Your task to perform on an android device: When is my next appointment? Image 0: 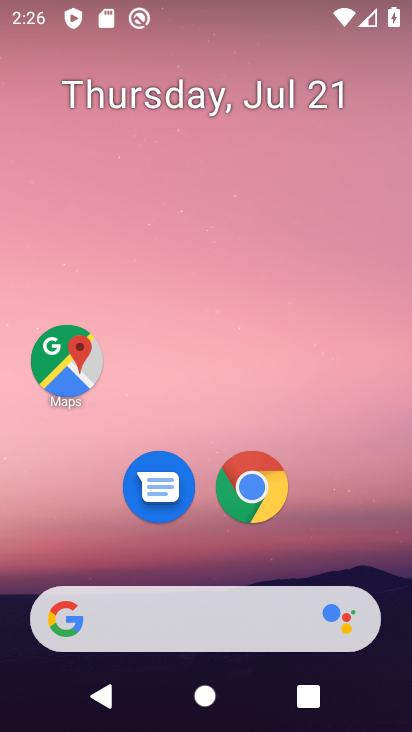
Step 0: drag from (206, 481) to (238, 8)
Your task to perform on an android device: When is my next appointment? Image 1: 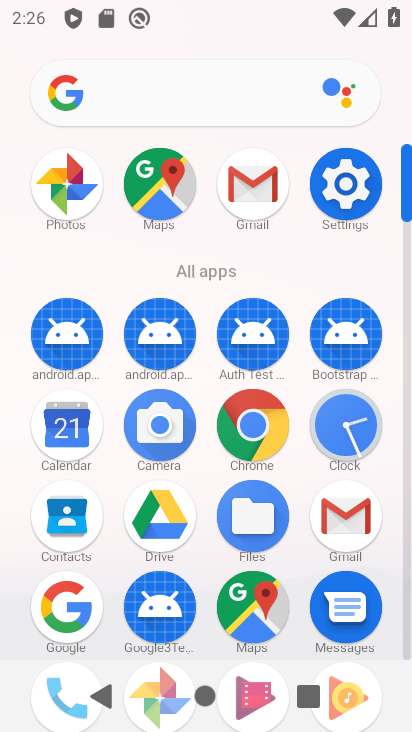
Step 1: click (54, 405)
Your task to perform on an android device: When is my next appointment? Image 2: 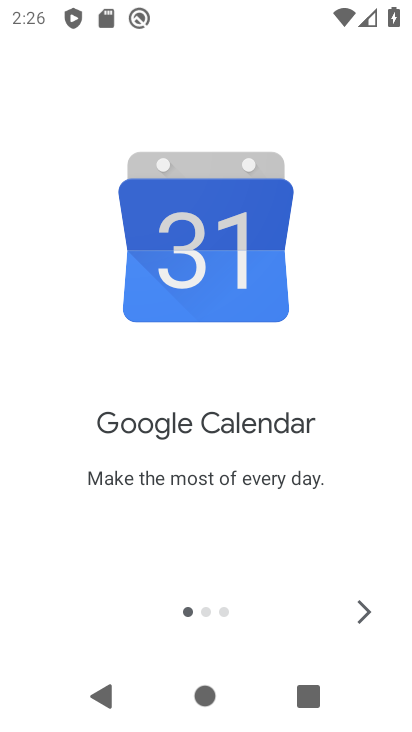
Step 2: click (365, 617)
Your task to perform on an android device: When is my next appointment? Image 3: 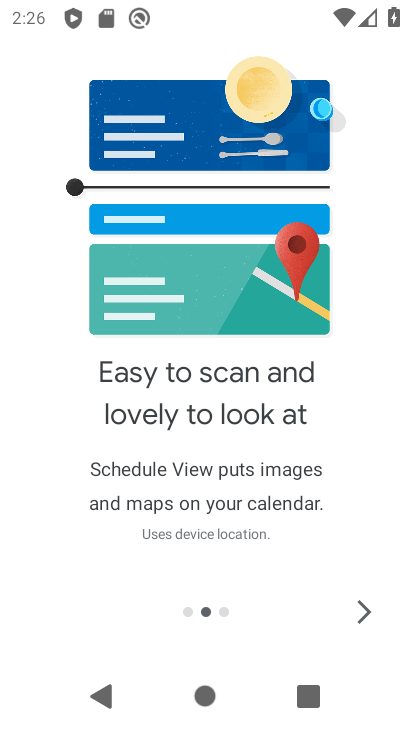
Step 3: click (364, 605)
Your task to perform on an android device: When is my next appointment? Image 4: 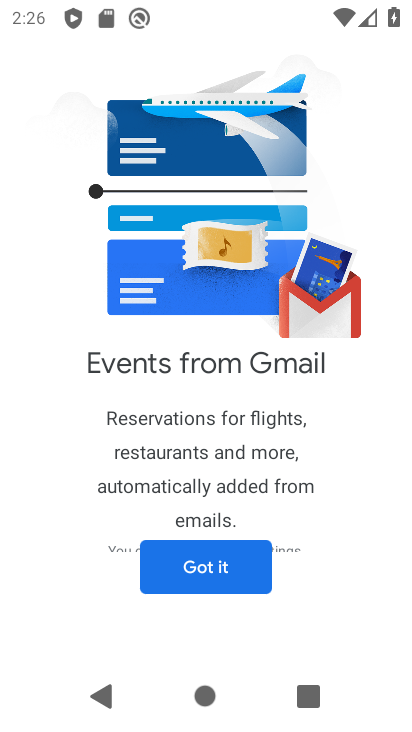
Step 4: click (245, 560)
Your task to perform on an android device: When is my next appointment? Image 5: 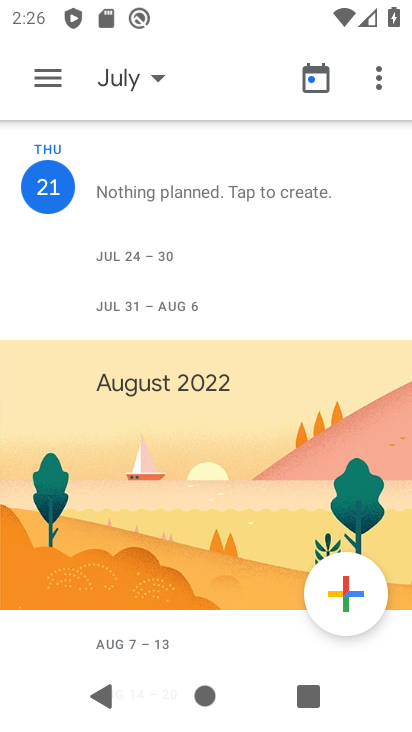
Step 5: task complete